Your task to perform on an android device: open wifi settings Image 0: 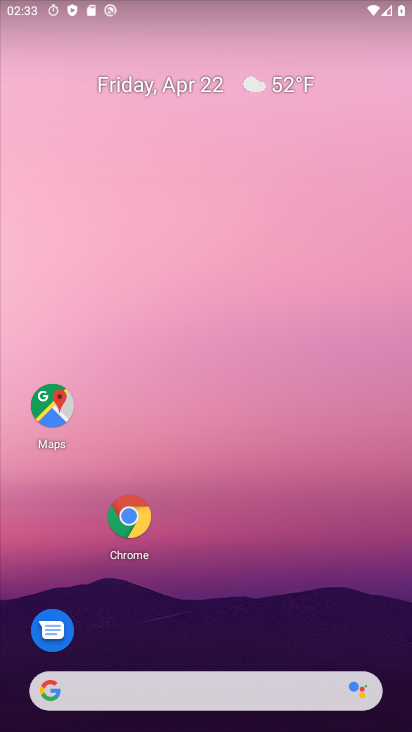
Step 0: drag from (338, 416) to (344, 145)
Your task to perform on an android device: open wifi settings Image 1: 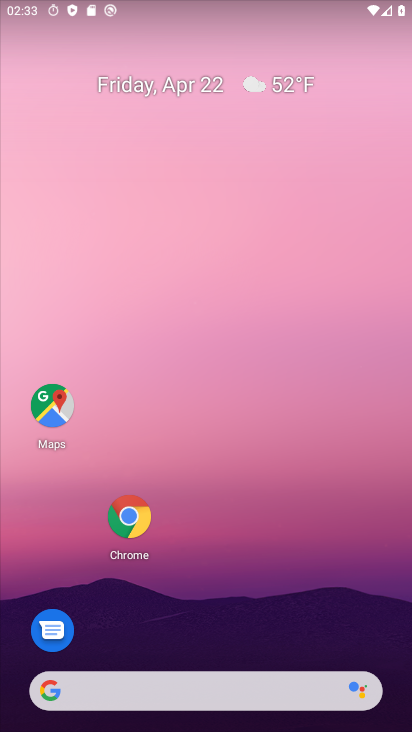
Step 1: click (359, 196)
Your task to perform on an android device: open wifi settings Image 2: 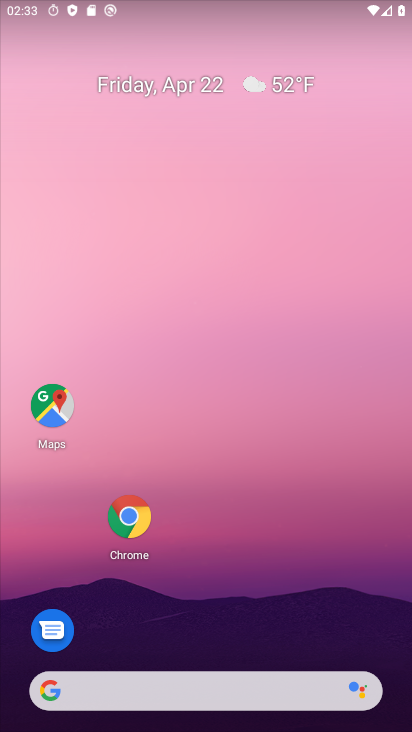
Step 2: drag from (384, 615) to (360, 177)
Your task to perform on an android device: open wifi settings Image 3: 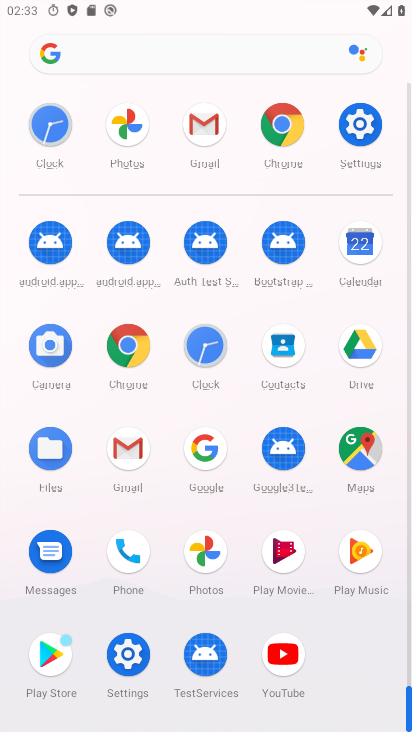
Step 3: click (352, 114)
Your task to perform on an android device: open wifi settings Image 4: 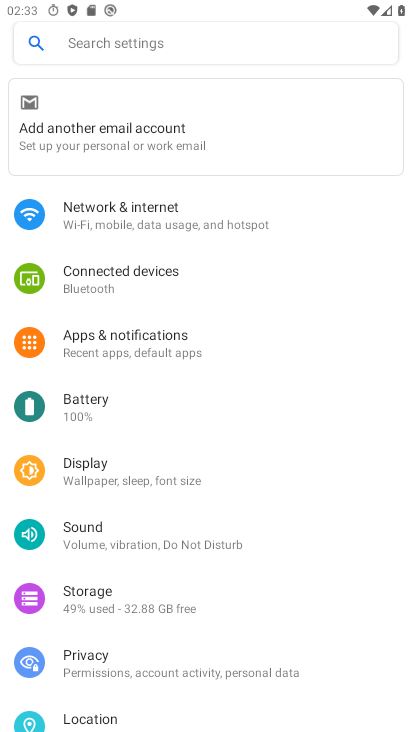
Step 4: click (86, 209)
Your task to perform on an android device: open wifi settings Image 5: 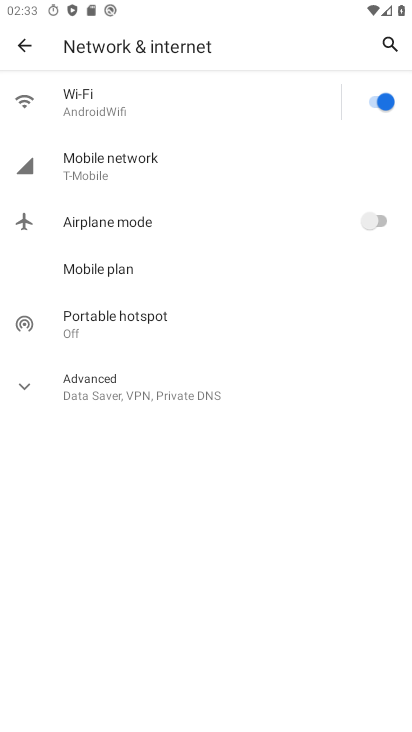
Step 5: task complete